Your task to perform on an android device: find photos in the google photos app Image 0: 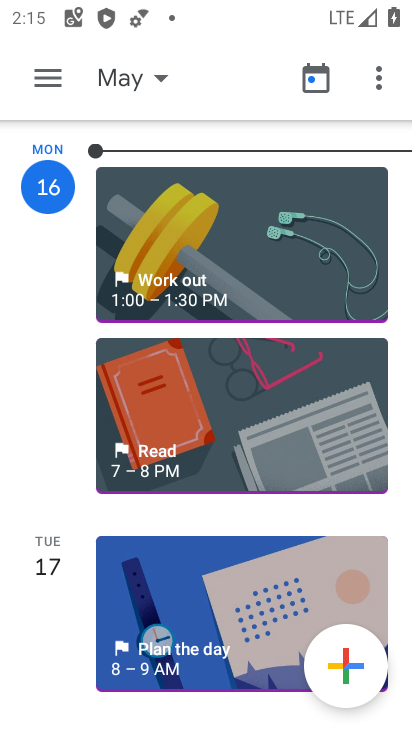
Step 0: press back button
Your task to perform on an android device: find photos in the google photos app Image 1: 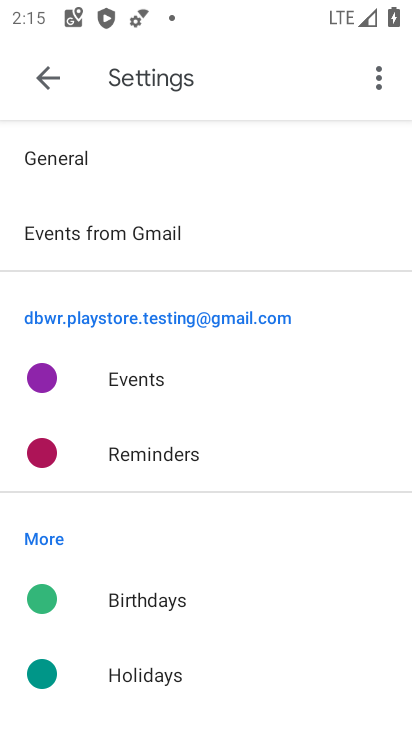
Step 1: press back button
Your task to perform on an android device: find photos in the google photos app Image 2: 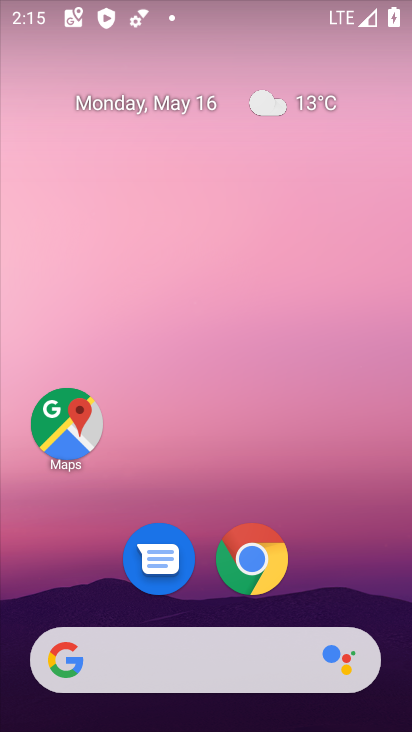
Step 2: drag from (170, 590) to (262, 53)
Your task to perform on an android device: find photos in the google photos app Image 3: 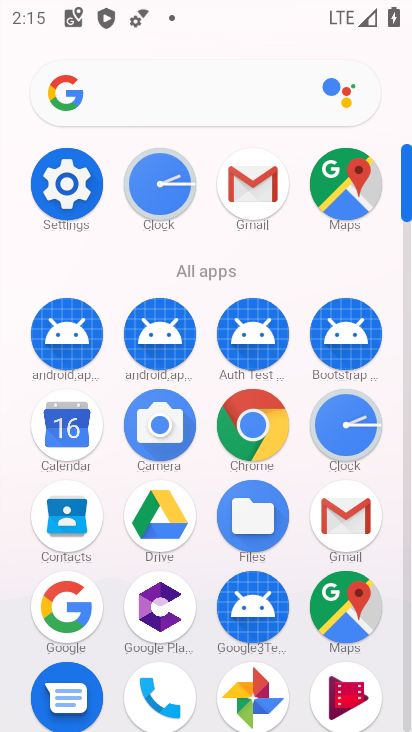
Step 3: click (222, 683)
Your task to perform on an android device: find photos in the google photos app Image 4: 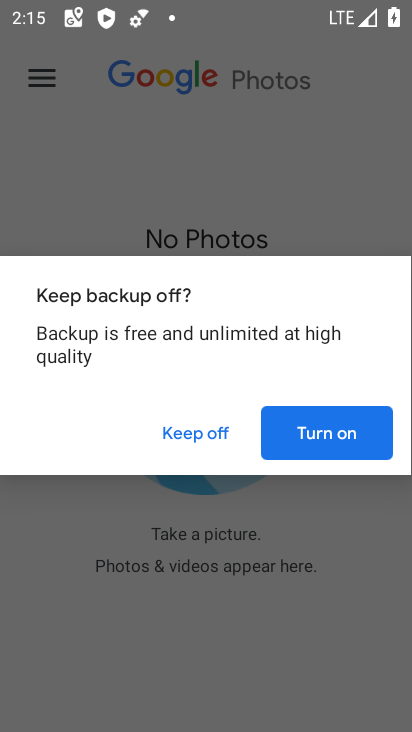
Step 4: click (204, 441)
Your task to perform on an android device: find photos in the google photos app Image 5: 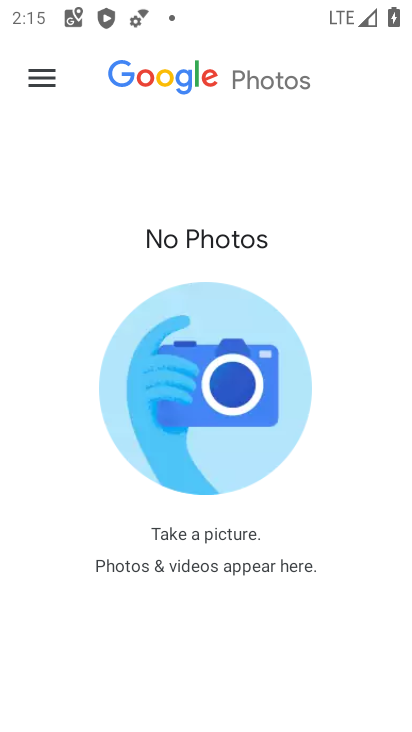
Step 5: task complete